Your task to perform on an android device: When is my next meeting? Image 0: 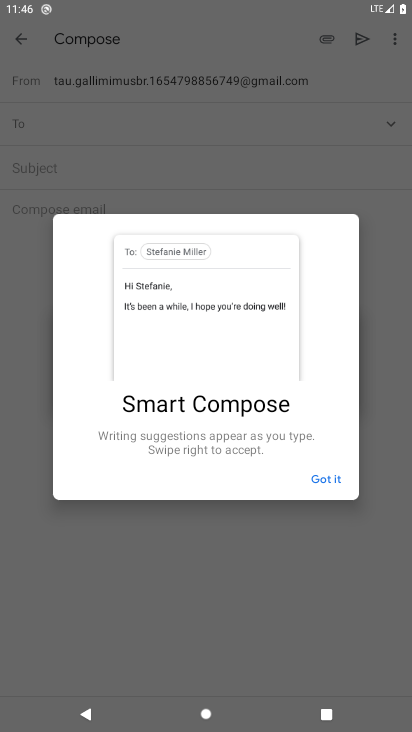
Step 0: press home button
Your task to perform on an android device: When is my next meeting? Image 1: 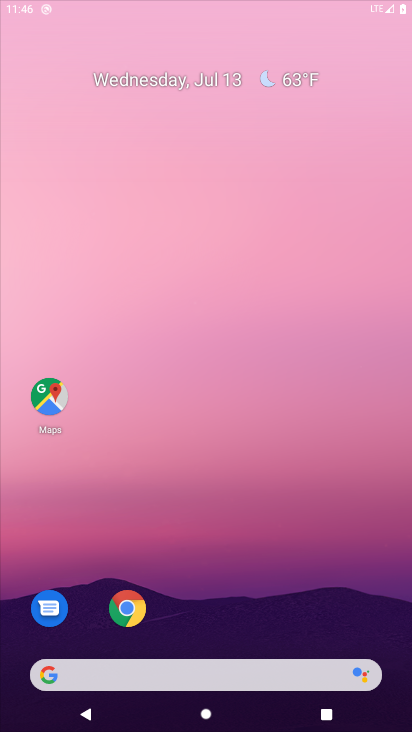
Step 1: drag from (212, 608) to (210, 5)
Your task to perform on an android device: When is my next meeting? Image 2: 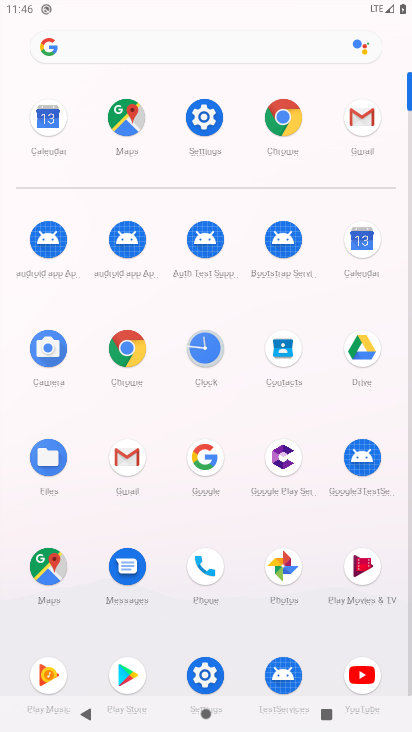
Step 2: click (350, 268)
Your task to perform on an android device: When is my next meeting? Image 3: 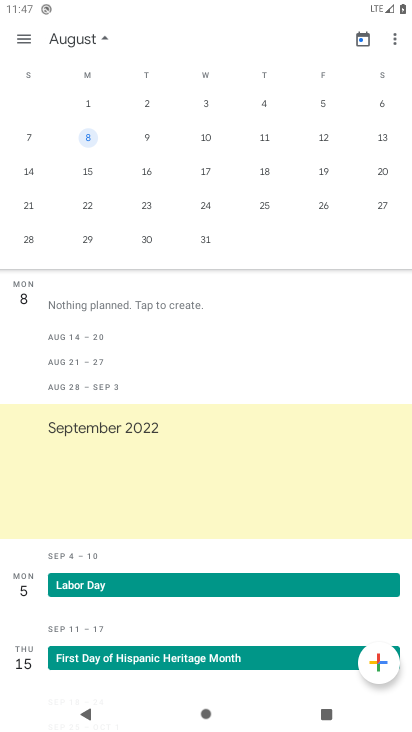
Step 3: click (101, 34)
Your task to perform on an android device: When is my next meeting? Image 4: 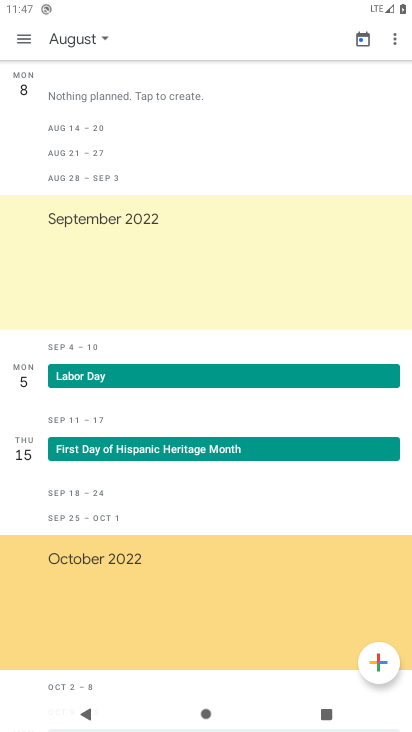
Step 4: task complete